Your task to perform on an android device: Open sound settings Image 0: 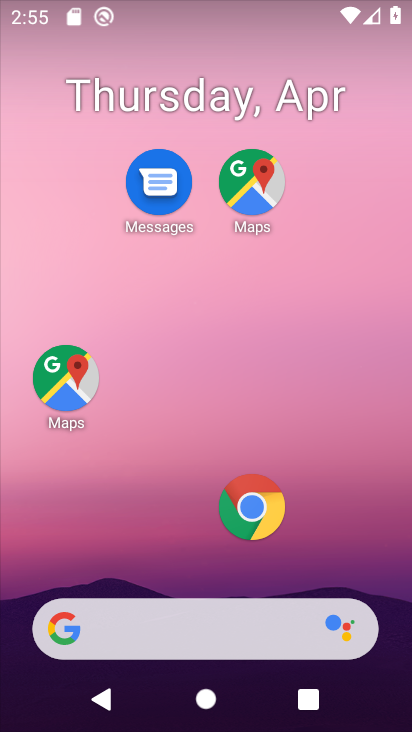
Step 0: click (301, 235)
Your task to perform on an android device: Open sound settings Image 1: 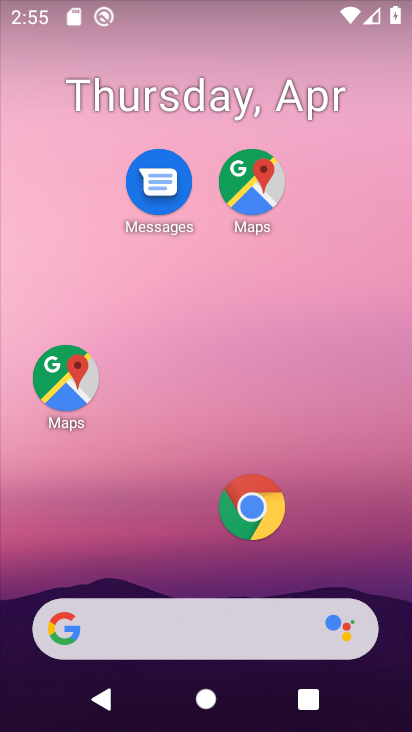
Step 1: drag from (187, 531) to (237, 5)
Your task to perform on an android device: Open sound settings Image 2: 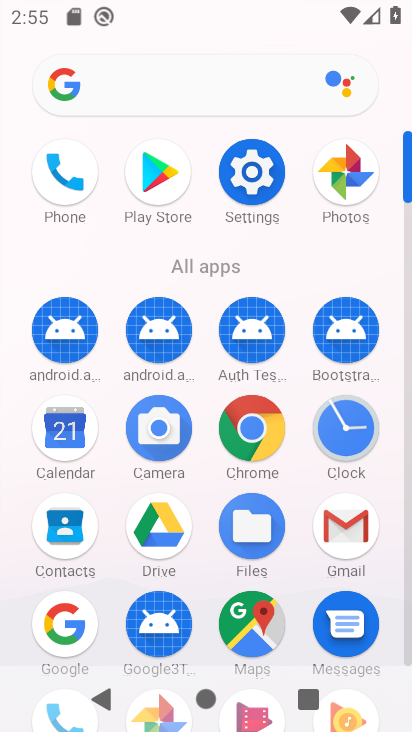
Step 2: click (246, 186)
Your task to perform on an android device: Open sound settings Image 3: 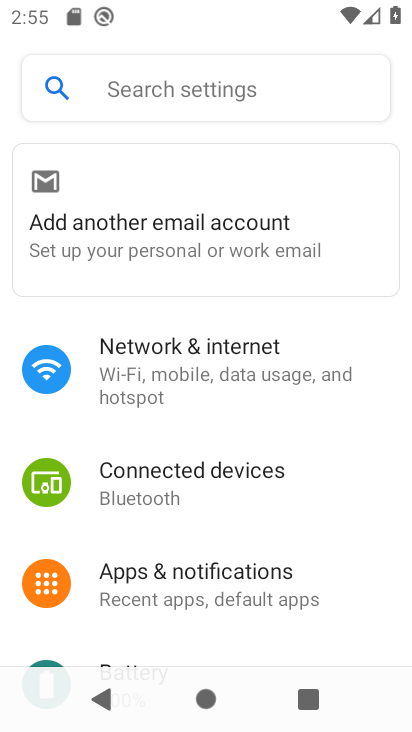
Step 3: drag from (209, 453) to (253, 278)
Your task to perform on an android device: Open sound settings Image 4: 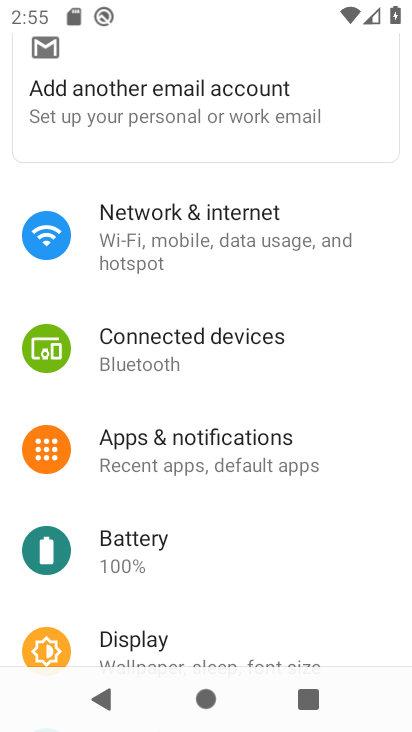
Step 4: drag from (163, 557) to (260, 211)
Your task to perform on an android device: Open sound settings Image 5: 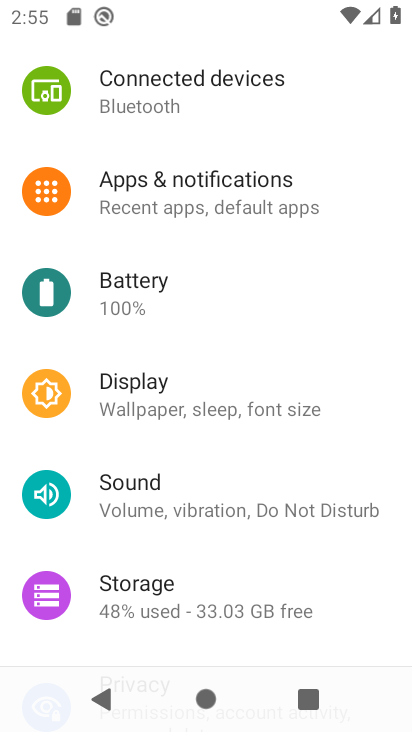
Step 5: click (168, 514)
Your task to perform on an android device: Open sound settings Image 6: 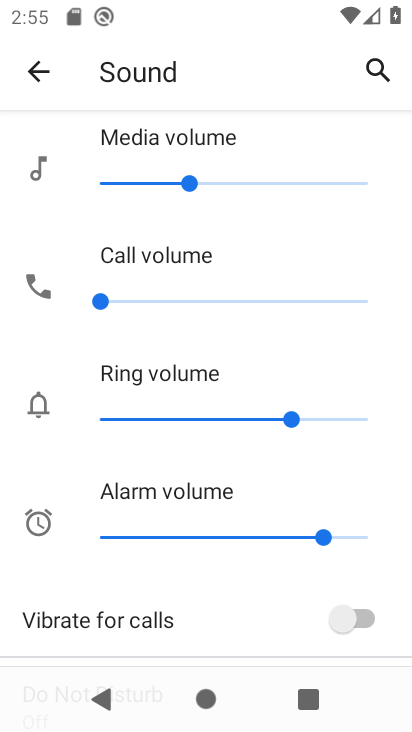
Step 6: task complete